Your task to perform on an android device: Open settings on Google Maps Image 0: 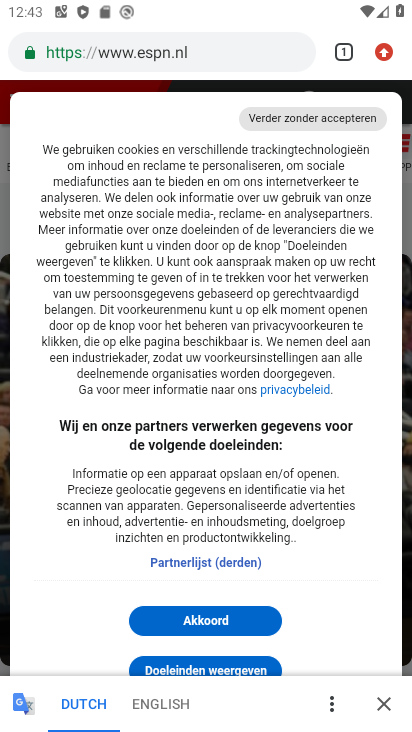
Step 0: press home button
Your task to perform on an android device: Open settings on Google Maps Image 1: 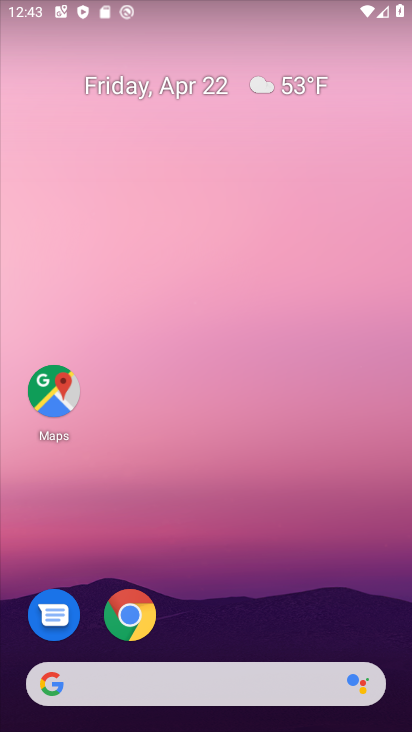
Step 1: click (60, 397)
Your task to perform on an android device: Open settings on Google Maps Image 2: 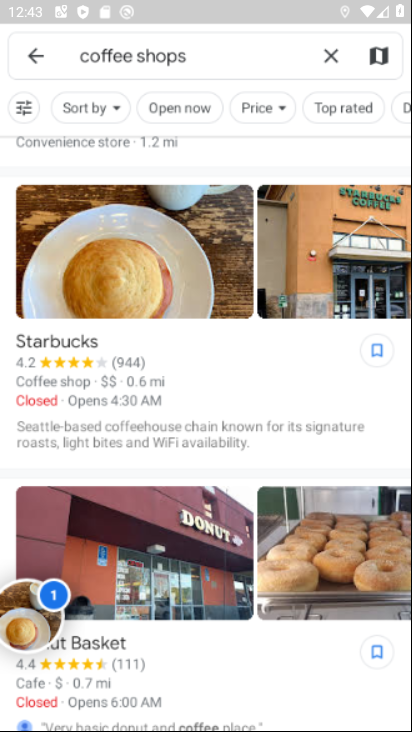
Step 2: click (323, 58)
Your task to perform on an android device: Open settings on Google Maps Image 3: 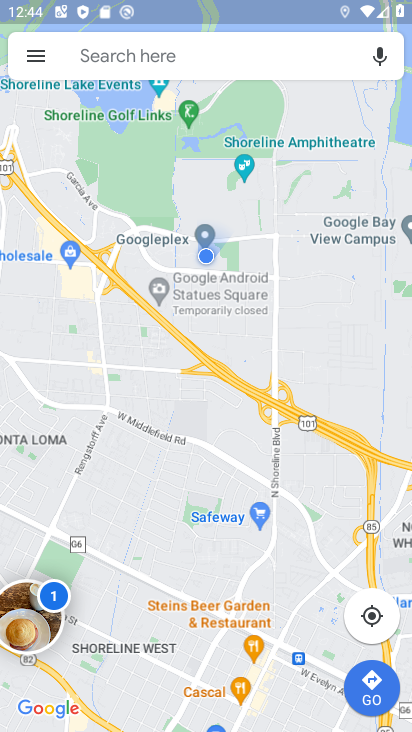
Step 3: click (35, 59)
Your task to perform on an android device: Open settings on Google Maps Image 4: 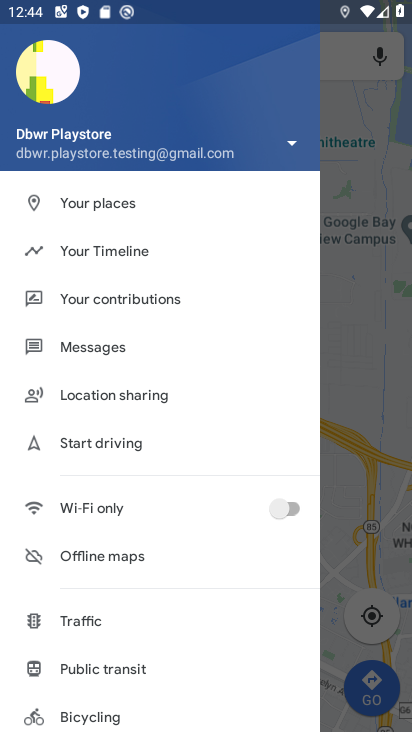
Step 4: drag from (150, 593) to (158, 191)
Your task to perform on an android device: Open settings on Google Maps Image 5: 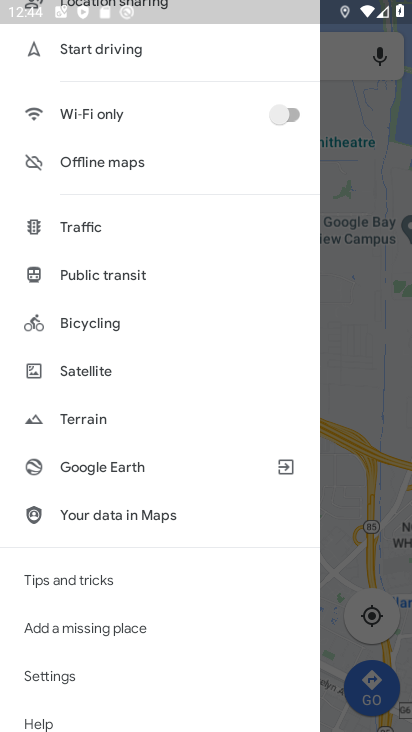
Step 5: click (53, 676)
Your task to perform on an android device: Open settings on Google Maps Image 6: 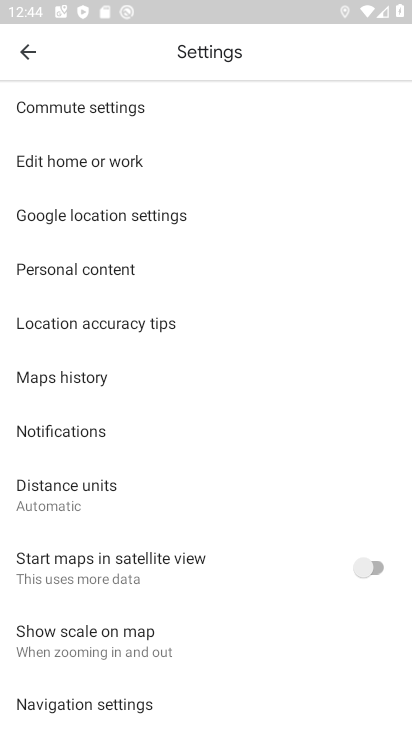
Step 6: task complete